Your task to perform on an android device: check the backup settings in the google photos Image 0: 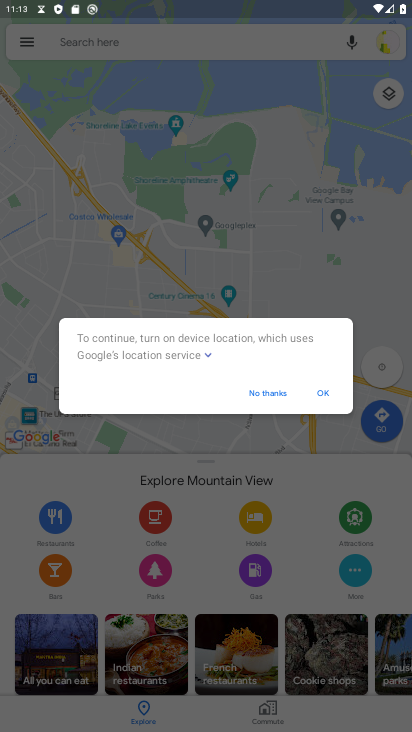
Step 0: press home button
Your task to perform on an android device: check the backup settings in the google photos Image 1: 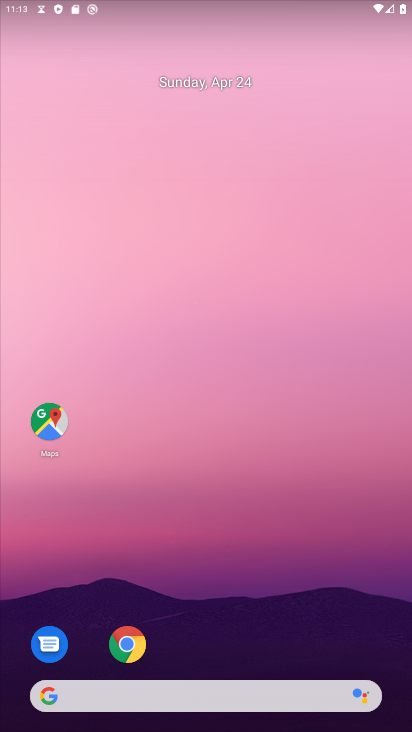
Step 1: drag from (379, 631) to (402, 9)
Your task to perform on an android device: check the backup settings in the google photos Image 2: 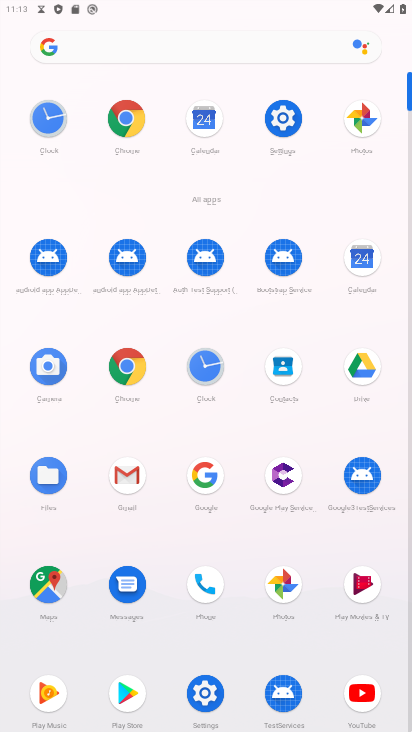
Step 2: click (366, 123)
Your task to perform on an android device: check the backup settings in the google photos Image 3: 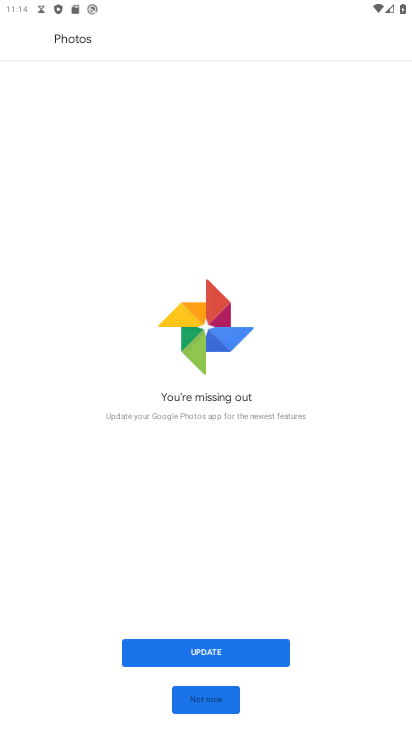
Step 3: click (212, 703)
Your task to perform on an android device: check the backup settings in the google photos Image 4: 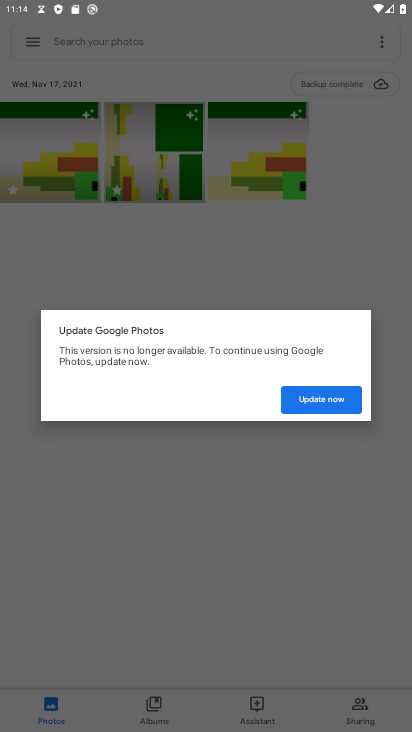
Step 4: click (319, 403)
Your task to perform on an android device: check the backup settings in the google photos Image 5: 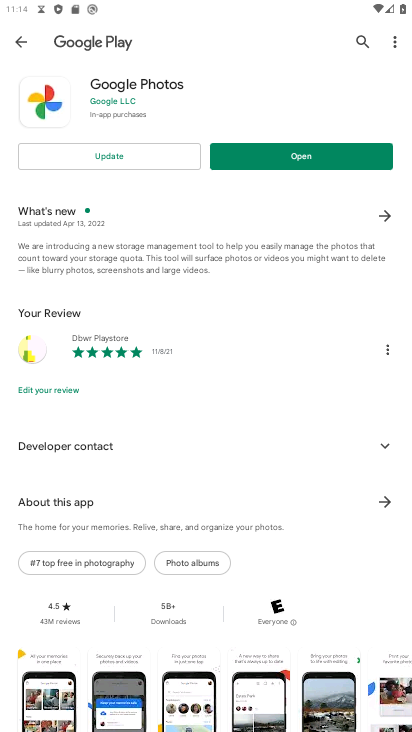
Step 5: click (260, 164)
Your task to perform on an android device: check the backup settings in the google photos Image 6: 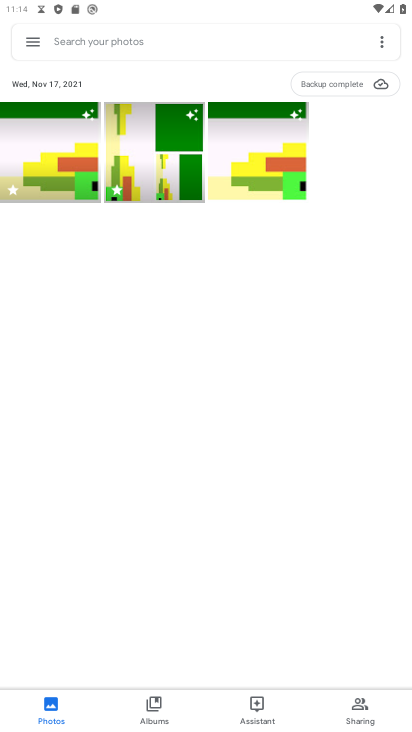
Step 6: click (28, 46)
Your task to perform on an android device: check the backup settings in the google photos Image 7: 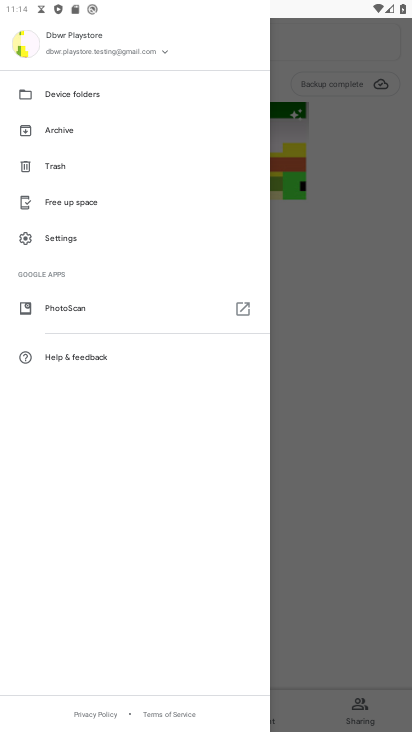
Step 7: click (62, 242)
Your task to perform on an android device: check the backup settings in the google photos Image 8: 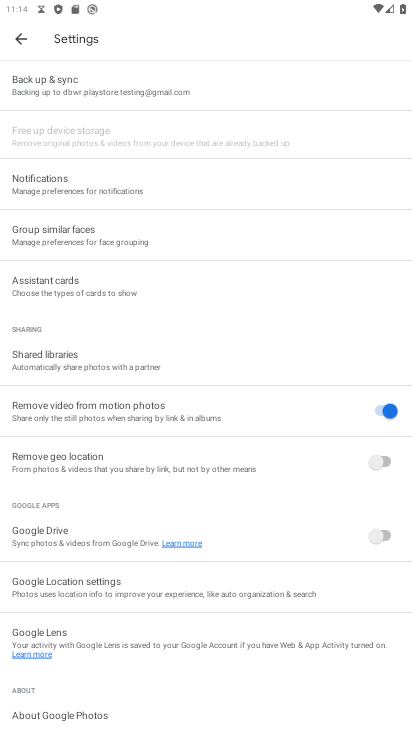
Step 8: click (74, 93)
Your task to perform on an android device: check the backup settings in the google photos Image 9: 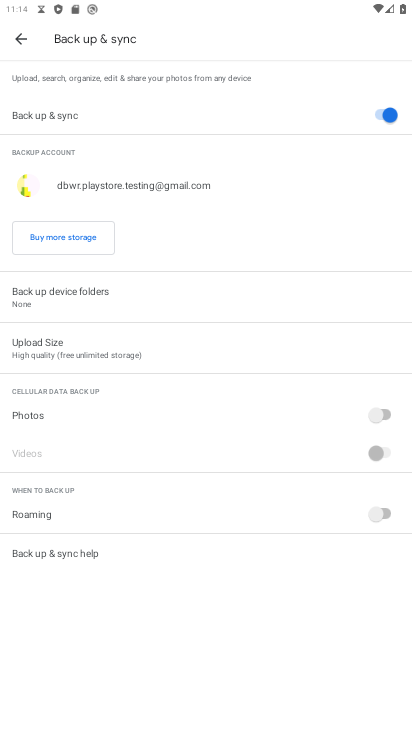
Step 9: task complete